Your task to perform on an android device: toggle priority inbox in the gmail app Image 0: 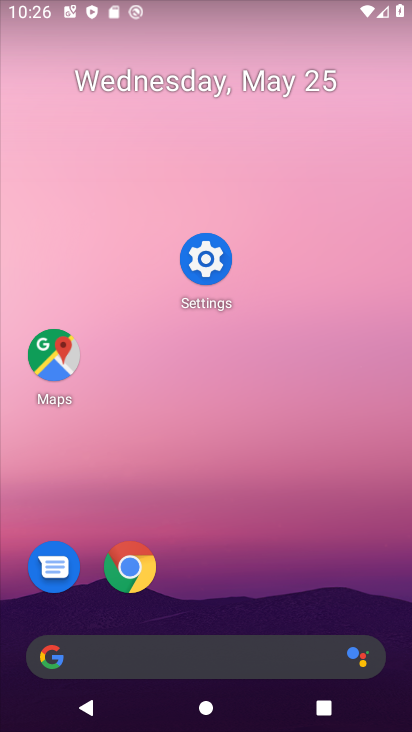
Step 0: drag from (386, 572) to (376, 88)
Your task to perform on an android device: toggle priority inbox in the gmail app Image 1: 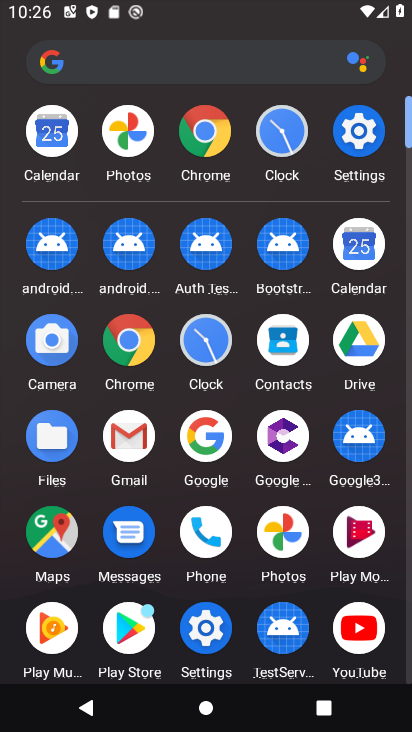
Step 1: click (125, 426)
Your task to perform on an android device: toggle priority inbox in the gmail app Image 2: 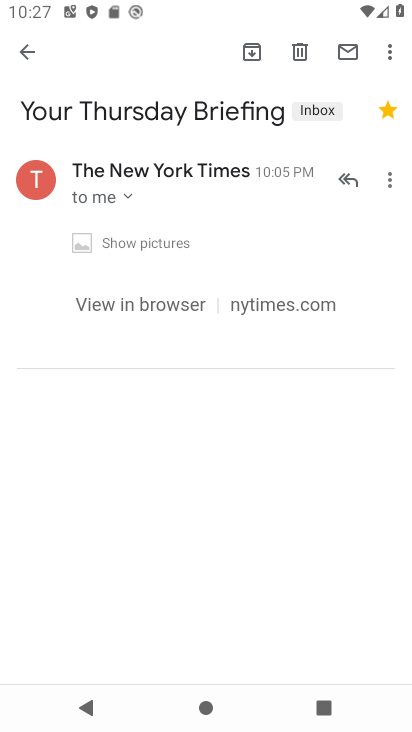
Step 2: click (18, 49)
Your task to perform on an android device: toggle priority inbox in the gmail app Image 3: 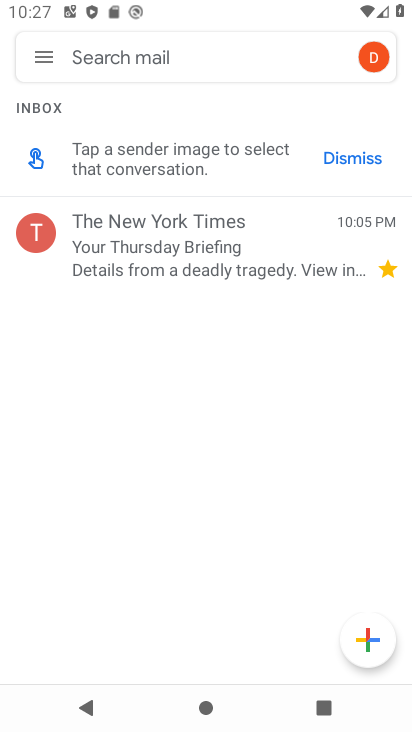
Step 3: click (18, 49)
Your task to perform on an android device: toggle priority inbox in the gmail app Image 4: 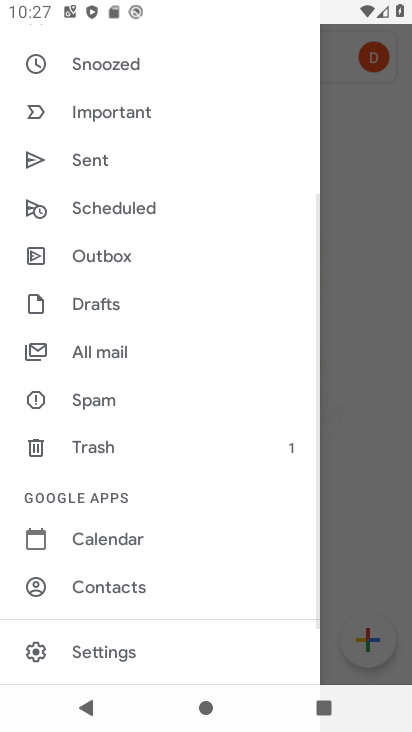
Step 4: click (86, 654)
Your task to perform on an android device: toggle priority inbox in the gmail app Image 5: 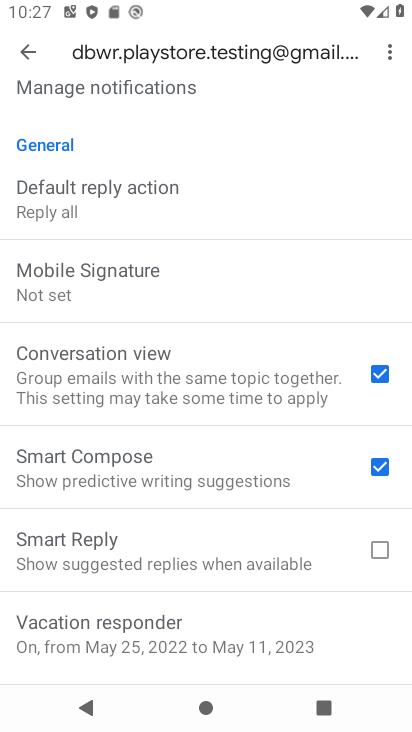
Step 5: drag from (195, 273) to (218, 580)
Your task to perform on an android device: toggle priority inbox in the gmail app Image 6: 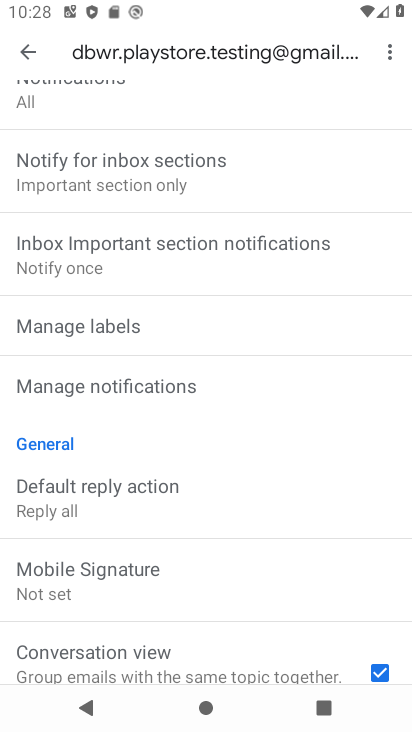
Step 6: drag from (188, 552) to (278, 719)
Your task to perform on an android device: toggle priority inbox in the gmail app Image 7: 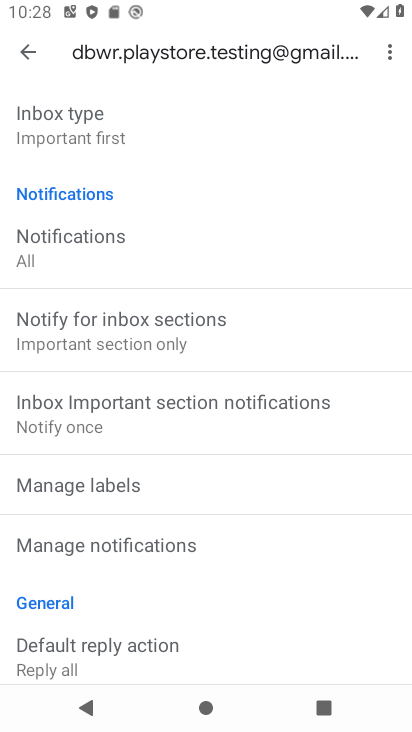
Step 7: click (233, 129)
Your task to perform on an android device: toggle priority inbox in the gmail app Image 8: 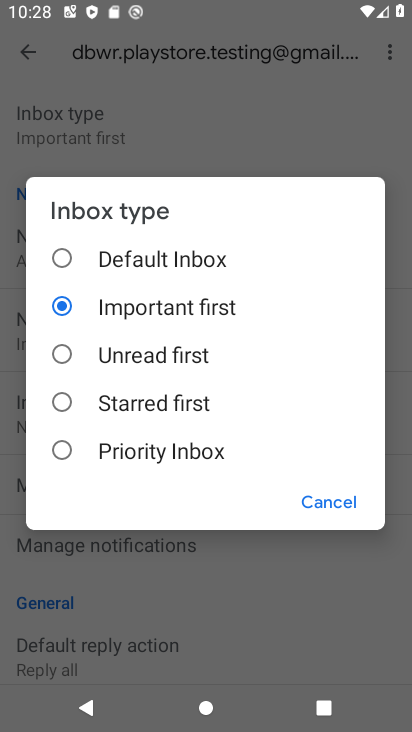
Step 8: click (188, 440)
Your task to perform on an android device: toggle priority inbox in the gmail app Image 9: 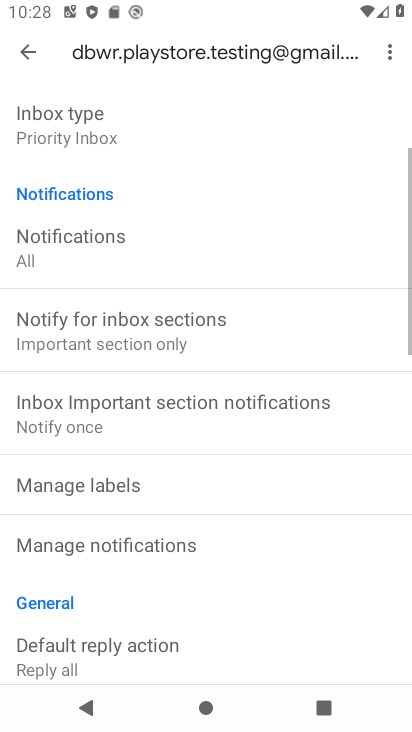
Step 9: task complete